Your task to perform on an android device: turn on improve location accuracy Image 0: 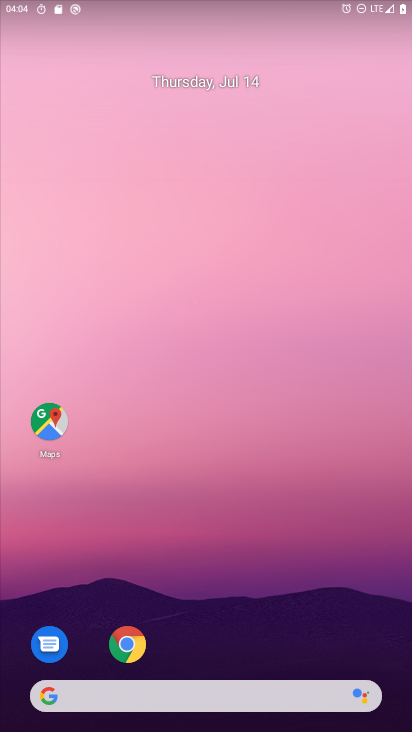
Step 0: drag from (321, 578) to (303, 43)
Your task to perform on an android device: turn on improve location accuracy Image 1: 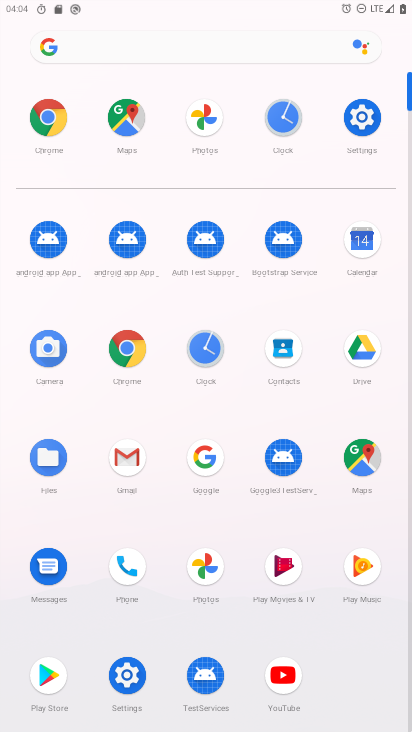
Step 1: click (371, 114)
Your task to perform on an android device: turn on improve location accuracy Image 2: 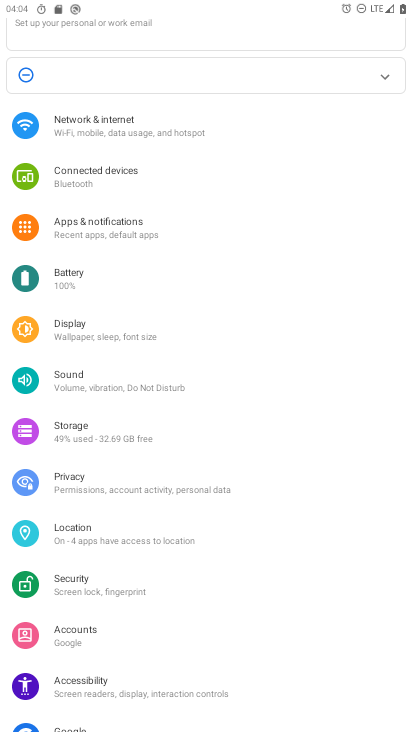
Step 2: click (90, 535)
Your task to perform on an android device: turn on improve location accuracy Image 3: 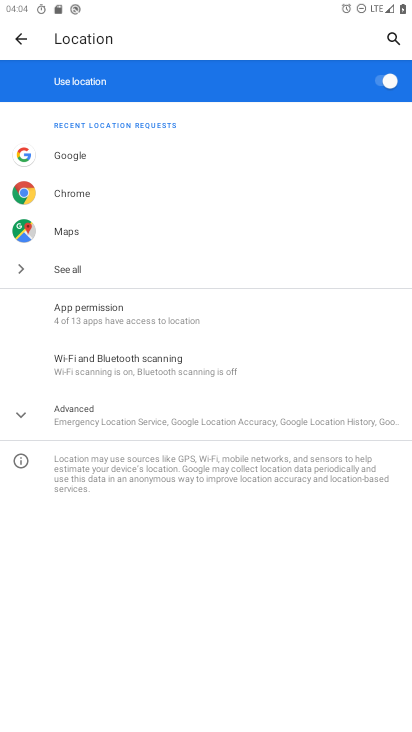
Step 3: click (161, 416)
Your task to perform on an android device: turn on improve location accuracy Image 4: 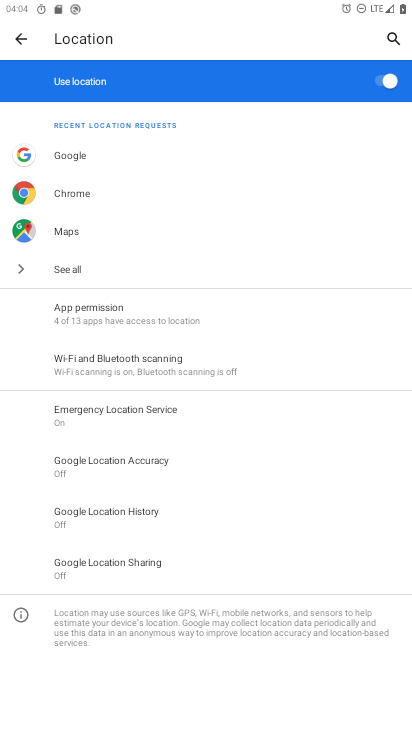
Step 4: click (133, 468)
Your task to perform on an android device: turn on improve location accuracy Image 5: 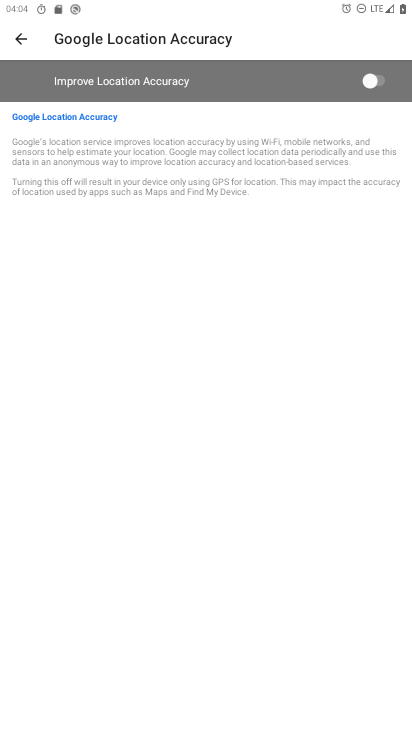
Step 5: click (374, 75)
Your task to perform on an android device: turn on improve location accuracy Image 6: 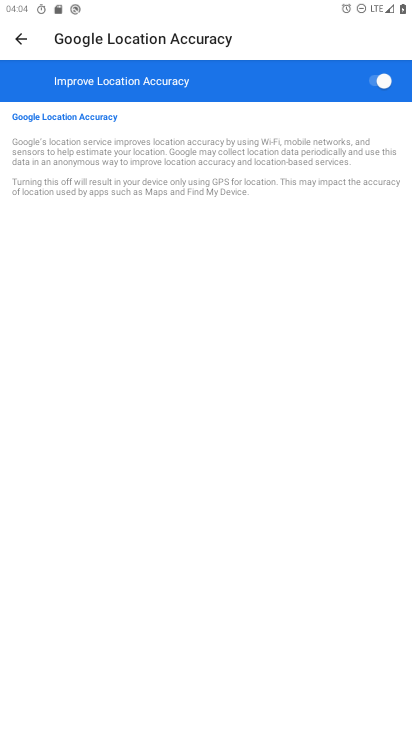
Step 6: task complete